Your task to perform on an android device: Go to Wikipedia Image 0: 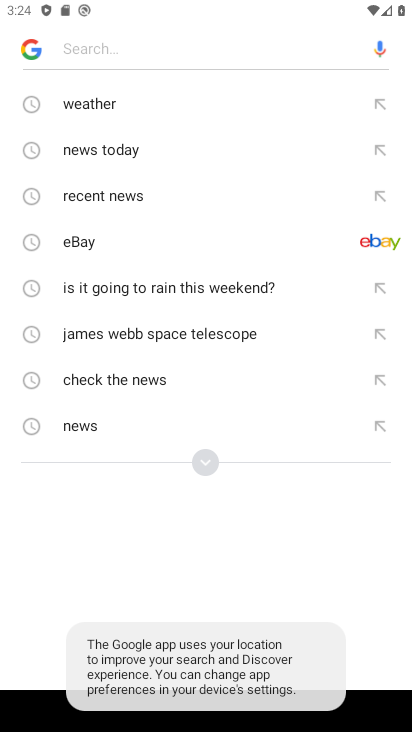
Step 0: press home button
Your task to perform on an android device: Go to Wikipedia Image 1: 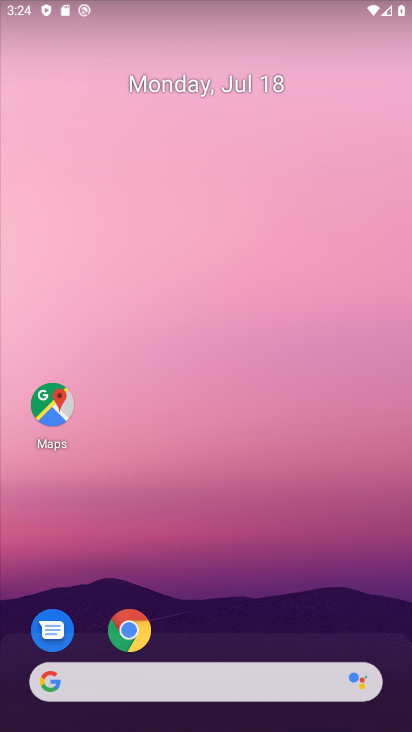
Step 1: click (143, 638)
Your task to perform on an android device: Go to Wikipedia Image 2: 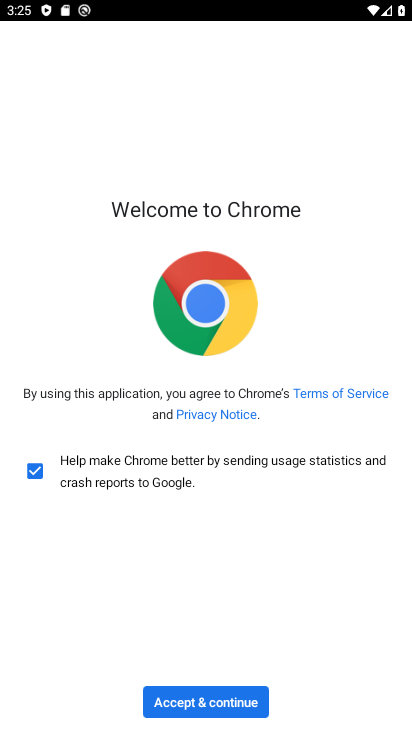
Step 2: click (240, 693)
Your task to perform on an android device: Go to Wikipedia Image 3: 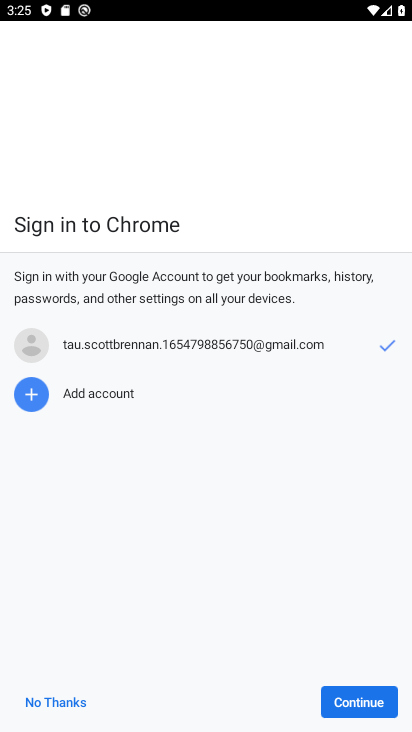
Step 3: click (357, 705)
Your task to perform on an android device: Go to Wikipedia Image 4: 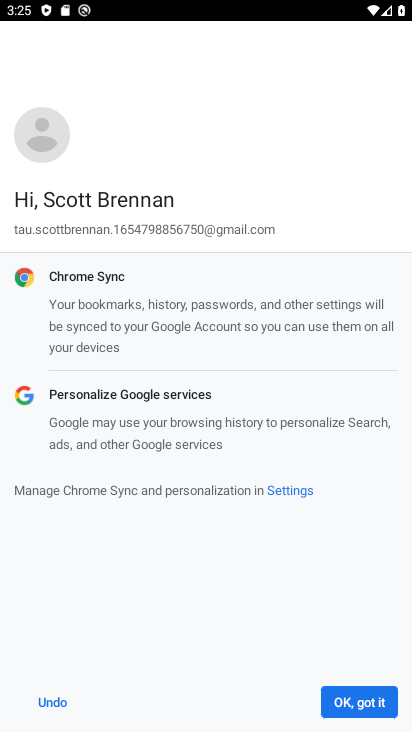
Step 4: click (357, 705)
Your task to perform on an android device: Go to Wikipedia Image 5: 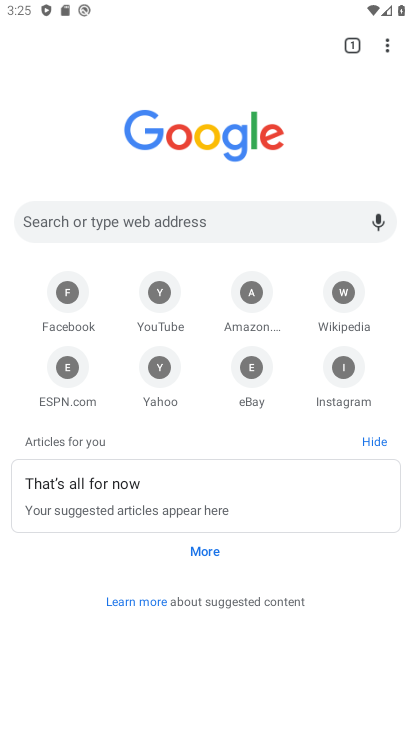
Step 5: click (334, 300)
Your task to perform on an android device: Go to Wikipedia Image 6: 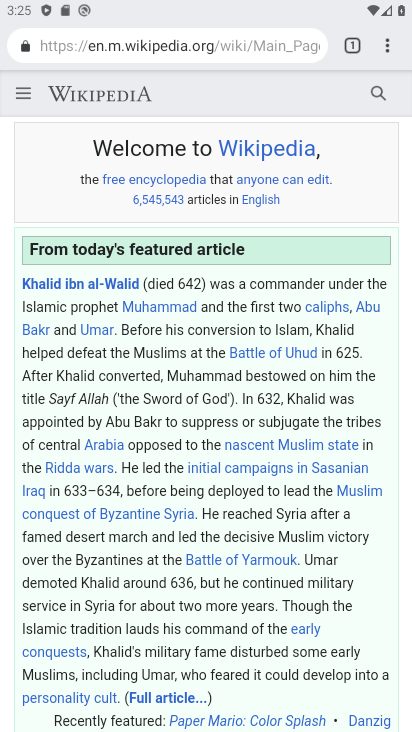
Step 6: task complete